Your task to perform on an android device: change the clock display to digital Image 0: 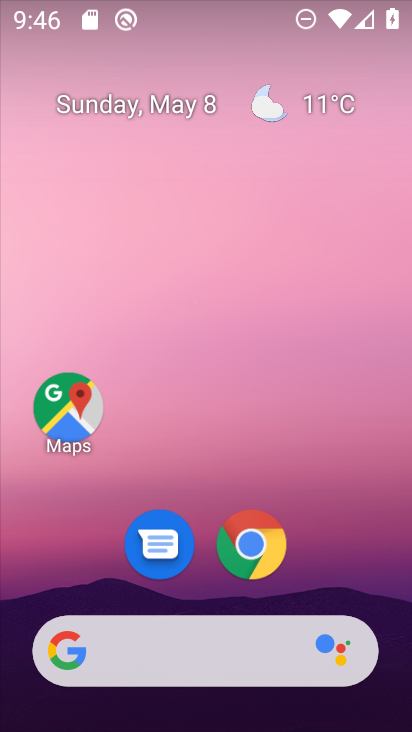
Step 0: drag from (341, 555) to (332, 1)
Your task to perform on an android device: change the clock display to digital Image 1: 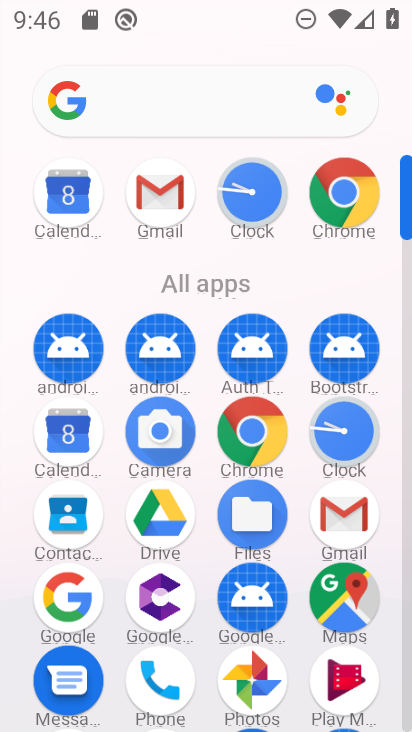
Step 1: click (345, 429)
Your task to perform on an android device: change the clock display to digital Image 2: 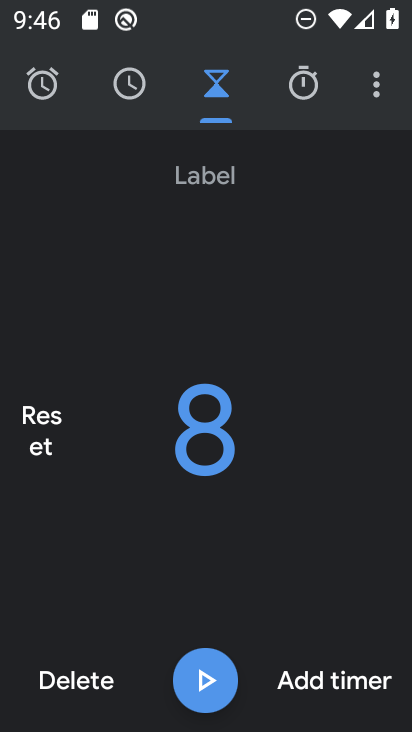
Step 2: click (368, 92)
Your task to perform on an android device: change the clock display to digital Image 3: 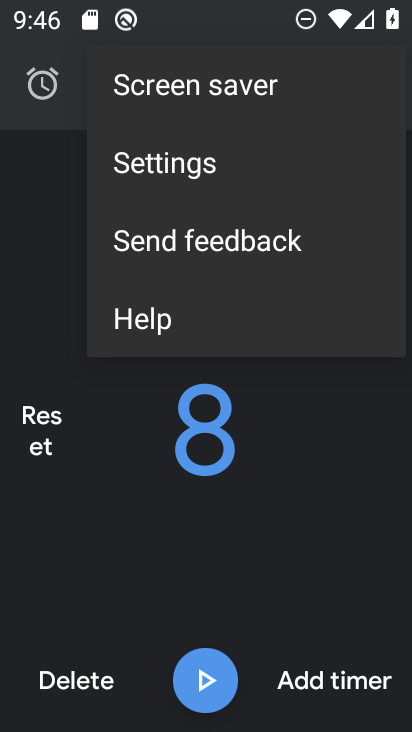
Step 3: click (151, 166)
Your task to perform on an android device: change the clock display to digital Image 4: 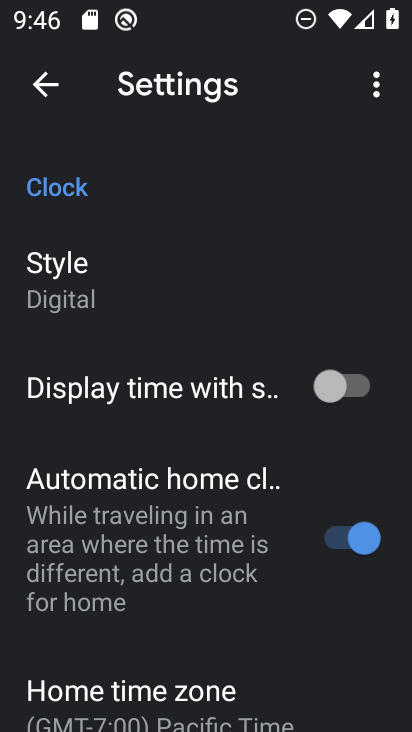
Step 4: click (82, 291)
Your task to perform on an android device: change the clock display to digital Image 5: 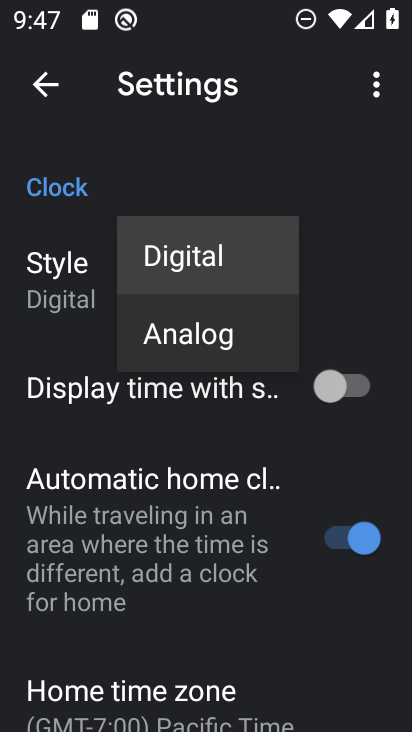
Step 5: task complete